Your task to perform on an android device: Open calendar and show me the fourth week of next month Image 0: 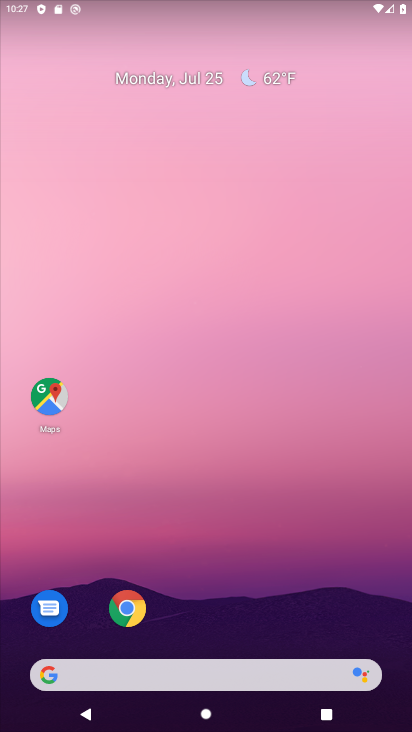
Step 0: drag from (181, 647) to (181, 297)
Your task to perform on an android device: Open calendar and show me the fourth week of next month Image 1: 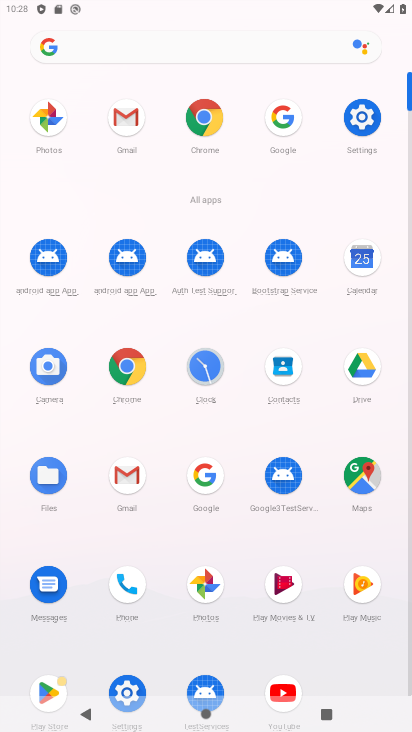
Step 1: click (360, 266)
Your task to perform on an android device: Open calendar and show me the fourth week of next month Image 2: 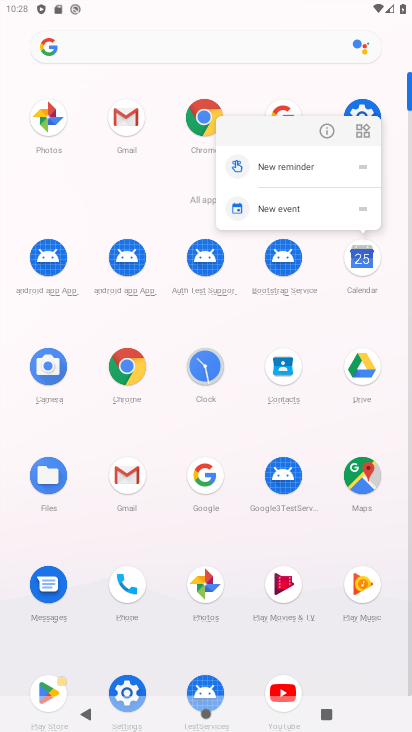
Step 2: click (360, 266)
Your task to perform on an android device: Open calendar and show me the fourth week of next month Image 3: 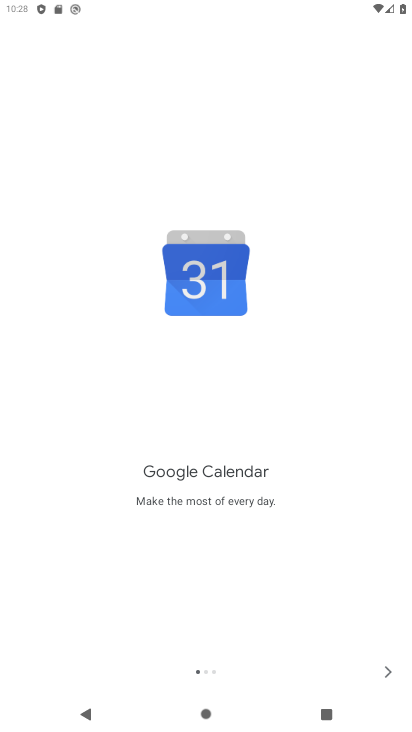
Step 3: click (391, 668)
Your task to perform on an android device: Open calendar and show me the fourth week of next month Image 4: 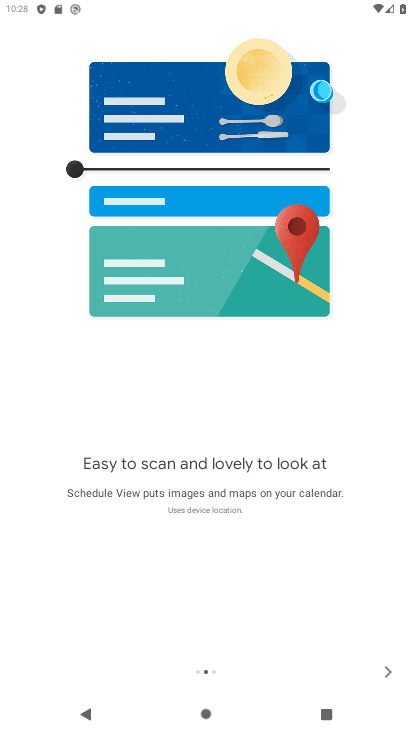
Step 4: click (390, 667)
Your task to perform on an android device: Open calendar and show me the fourth week of next month Image 5: 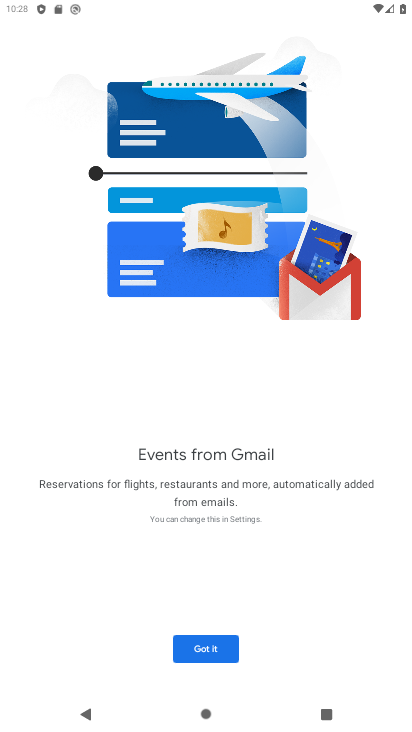
Step 5: click (228, 646)
Your task to perform on an android device: Open calendar and show me the fourth week of next month Image 6: 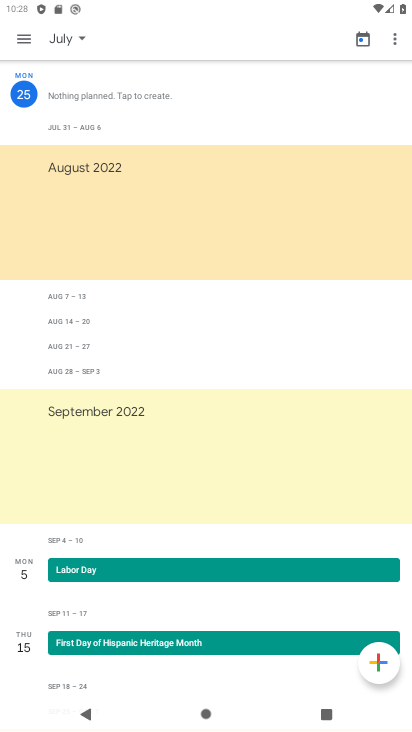
Step 6: click (61, 37)
Your task to perform on an android device: Open calendar and show me the fourth week of next month Image 7: 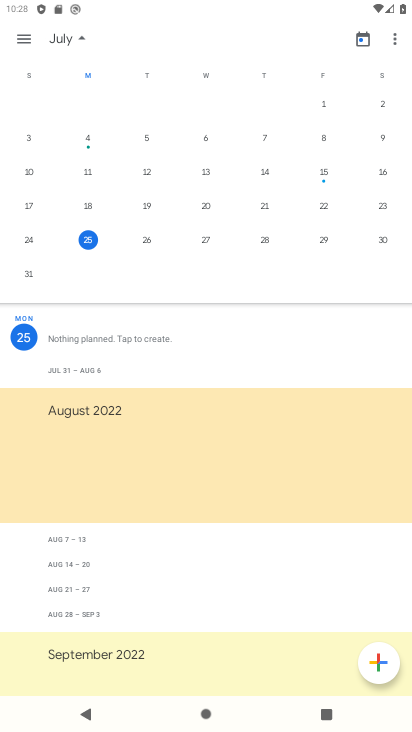
Step 7: drag from (316, 207) to (5, 331)
Your task to perform on an android device: Open calendar and show me the fourth week of next month Image 8: 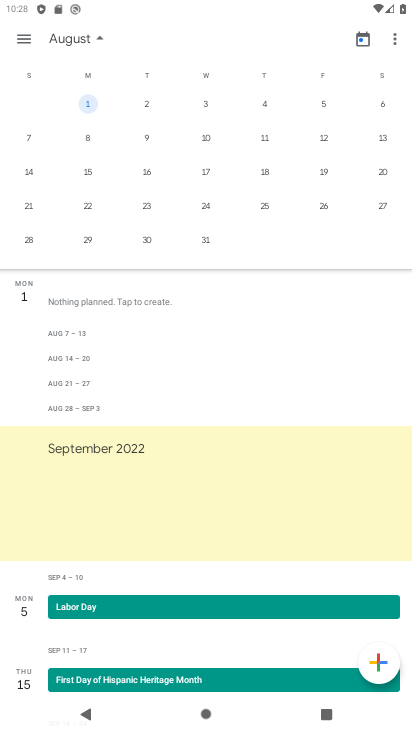
Step 8: click (31, 207)
Your task to perform on an android device: Open calendar and show me the fourth week of next month Image 9: 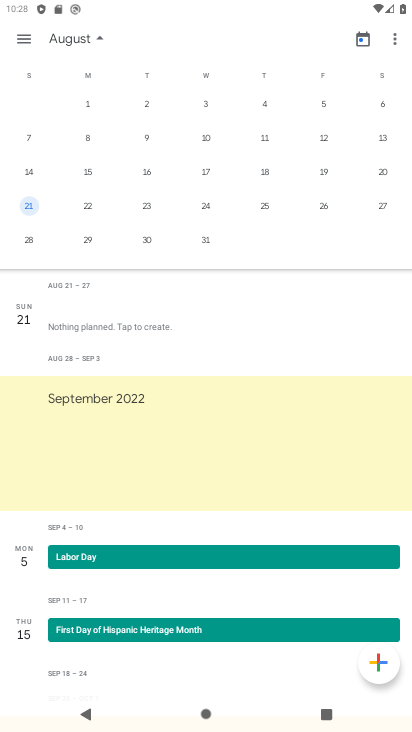
Step 9: task complete